Your task to perform on an android device: Play the latest video from the Huffington Post Image 0: 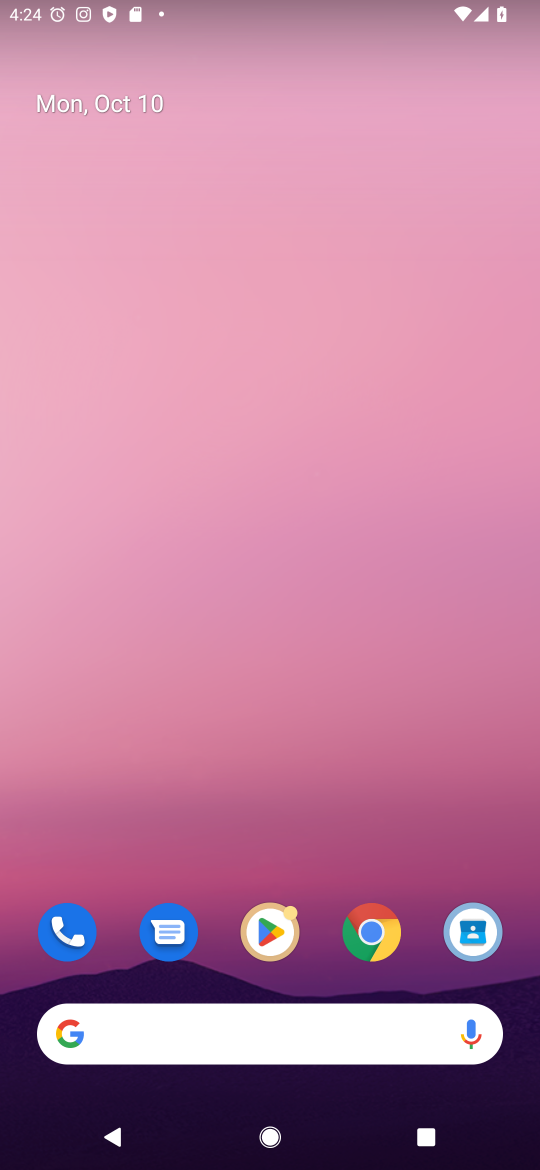
Step 0: press home button
Your task to perform on an android device: Play the latest video from the Huffington Post Image 1: 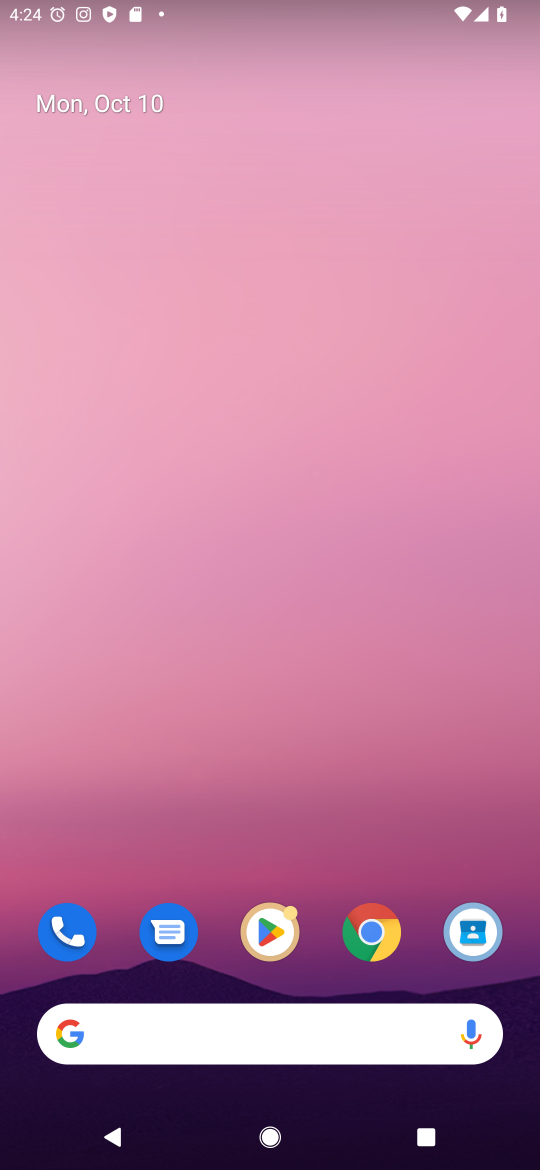
Step 1: click (295, 1030)
Your task to perform on an android device: Play the latest video from the Huffington Post Image 2: 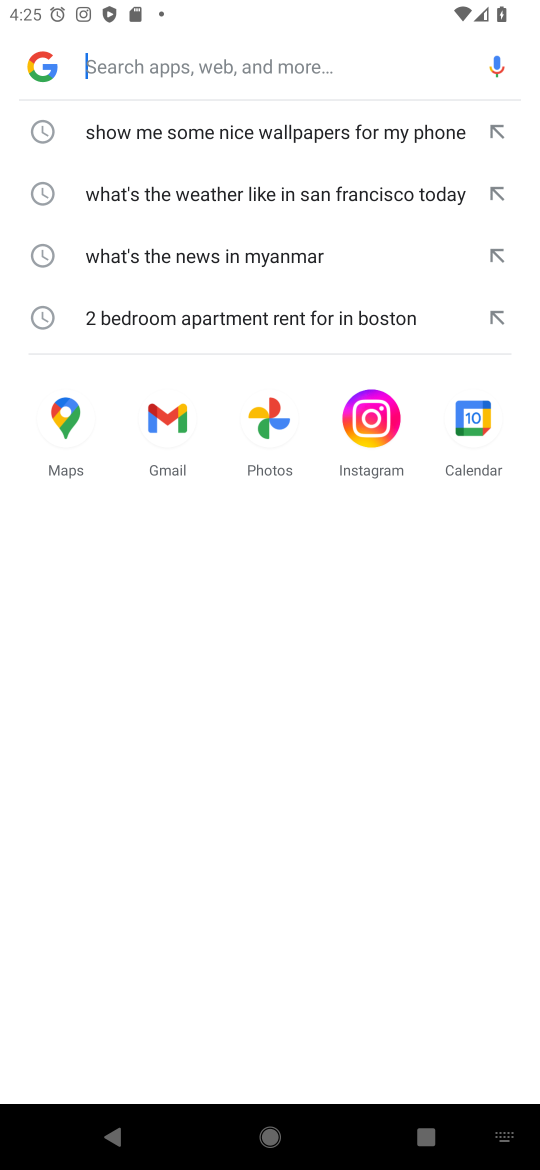
Step 2: press enter
Your task to perform on an android device: Play the latest video from the Huffington Post Image 3: 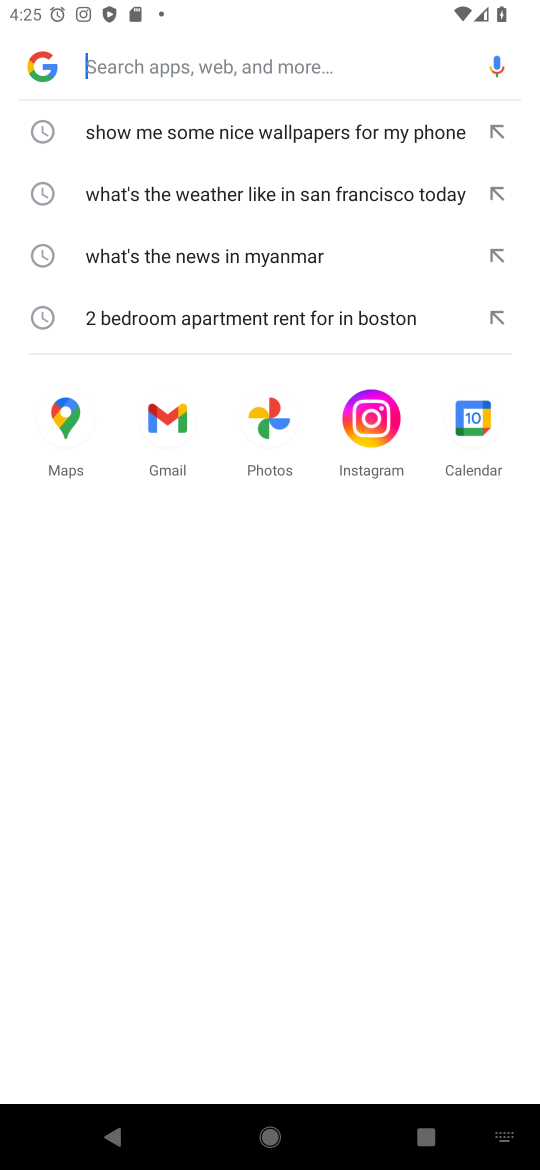
Step 3: type "Play the latest video from the Huffington Post"
Your task to perform on an android device: Play the latest video from the Huffington Post Image 4: 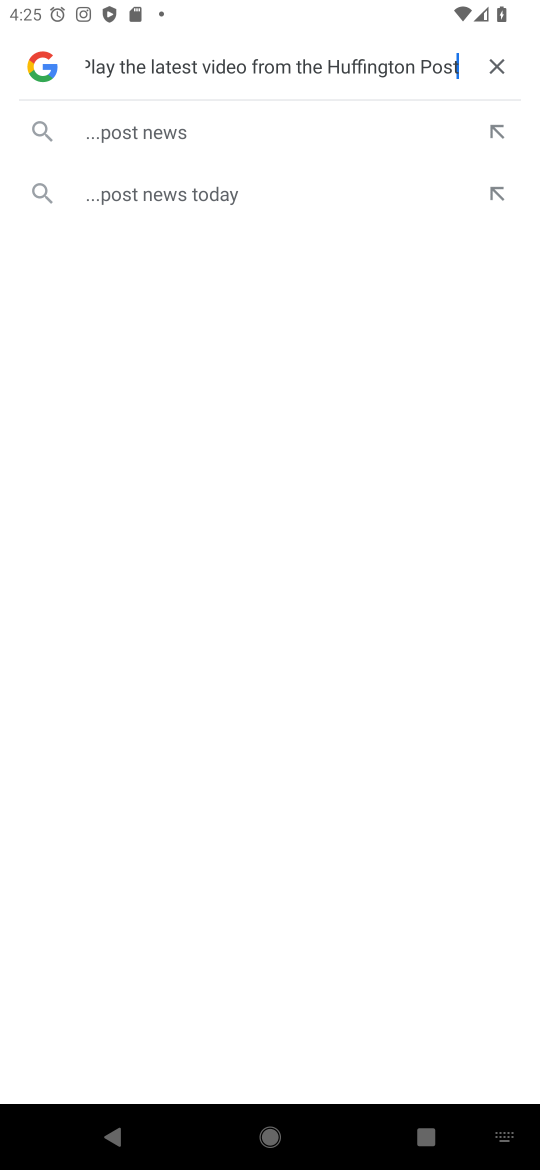
Step 4: press enter
Your task to perform on an android device: Play the latest video from the Huffington Post Image 5: 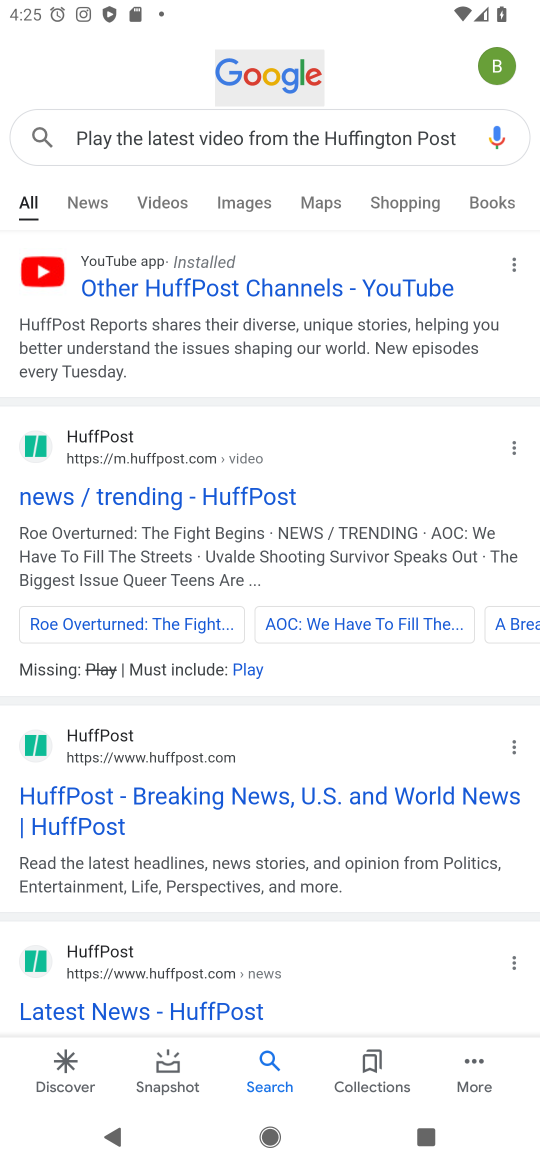
Step 5: click (337, 280)
Your task to perform on an android device: Play the latest video from the Huffington Post Image 6: 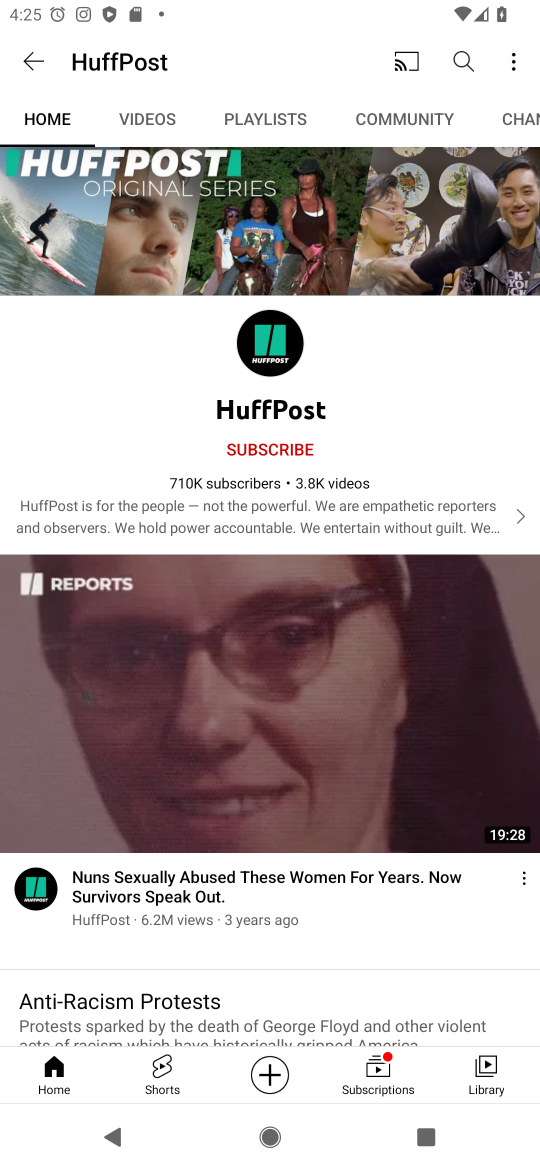
Step 6: click (320, 213)
Your task to perform on an android device: Play the latest video from the Huffington Post Image 7: 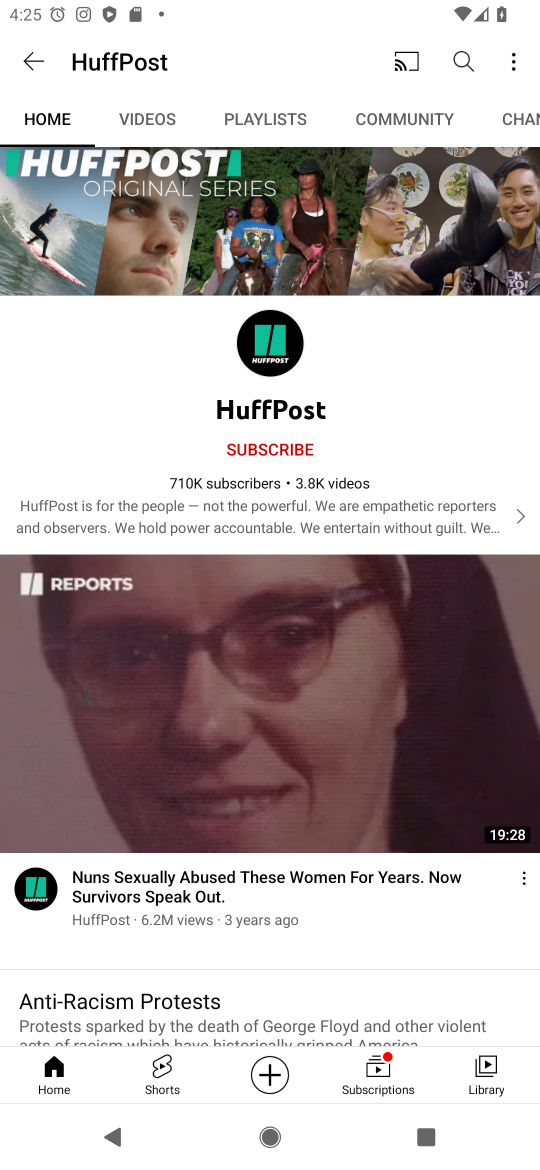
Step 7: click (166, 115)
Your task to perform on an android device: Play the latest video from the Huffington Post Image 8: 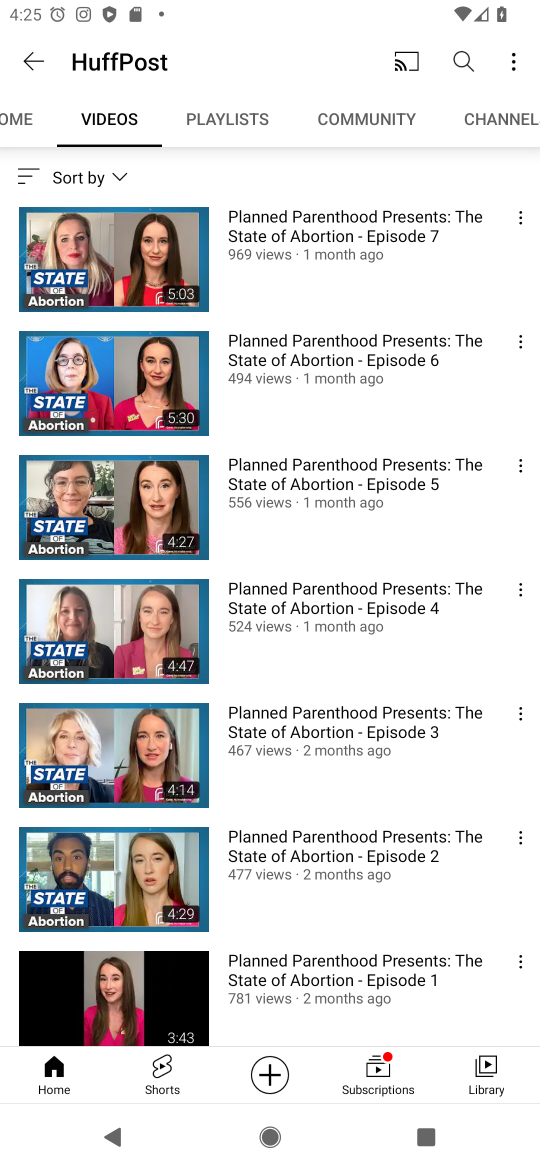
Step 8: click (13, 113)
Your task to perform on an android device: Play the latest video from the Huffington Post Image 9: 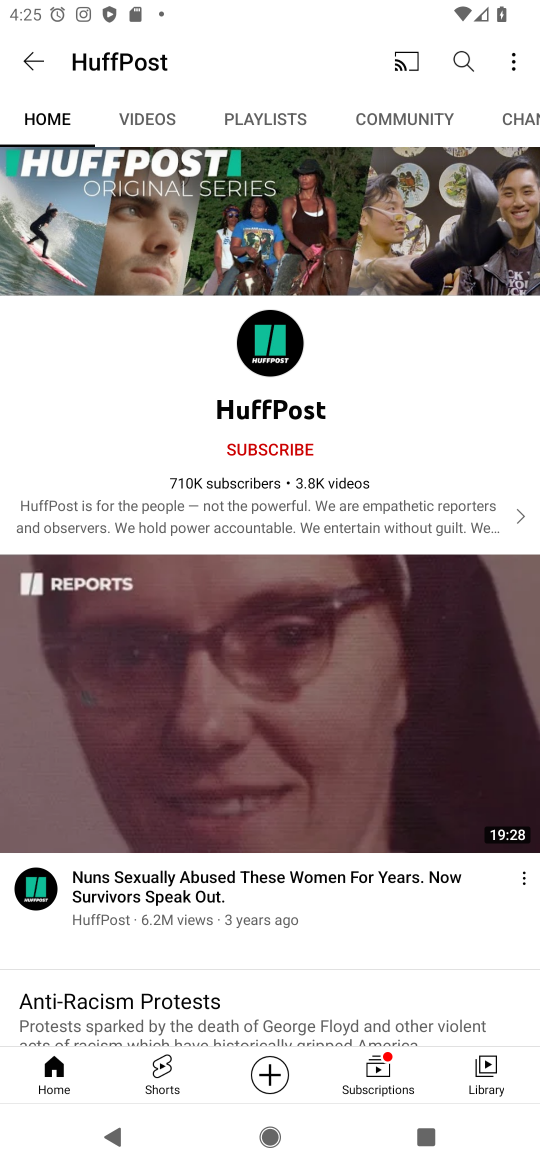
Step 9: task complete